Your task to perform on an android device: change the clock display to analog Image 0: 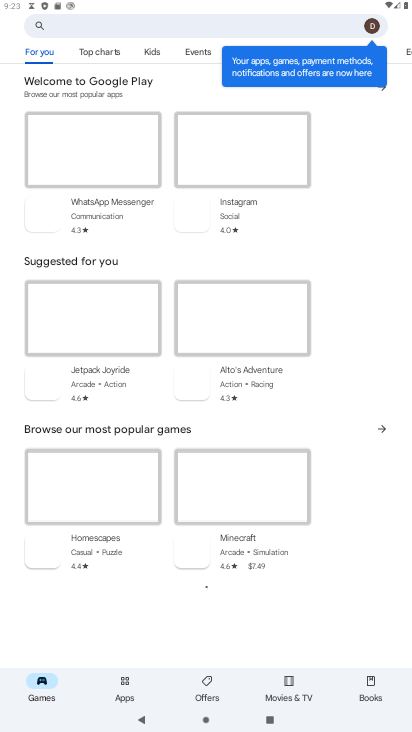
Step 0: press home button
Your task to perform on an android device: change the clock display to analog Image 1: 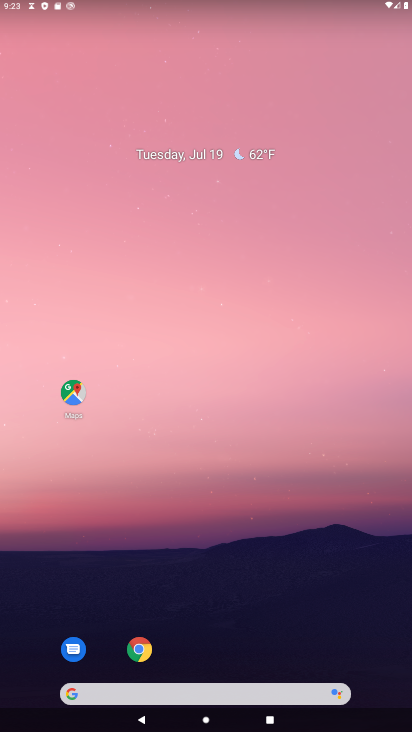
Step 1: drag from (306, 680) to (316, 56)
Your task to perform on an android device: change the clock display to analog Image 2: 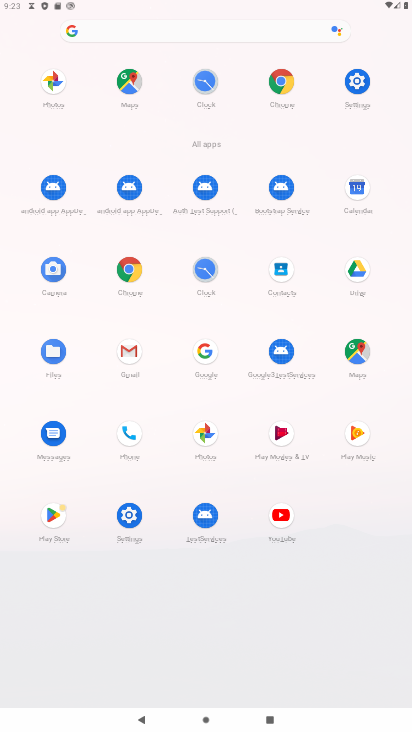
Step 2: click (206, 266)
Your task to perform on an android device: change the clock display to analog Image 3: 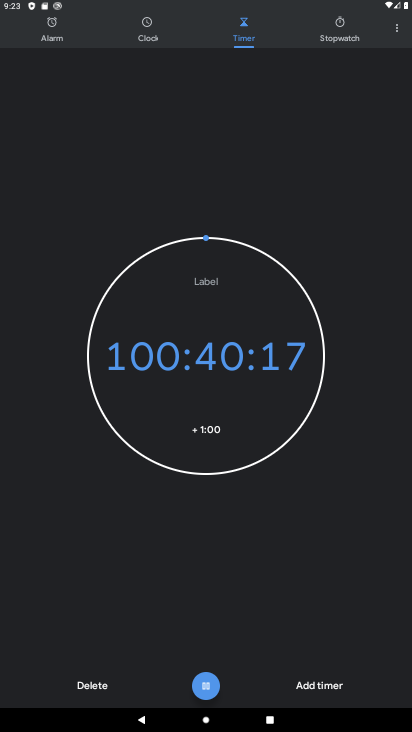
Step 3: click (406, 25)
Your task to perform on an android device: change the clock display to analog Image 4: 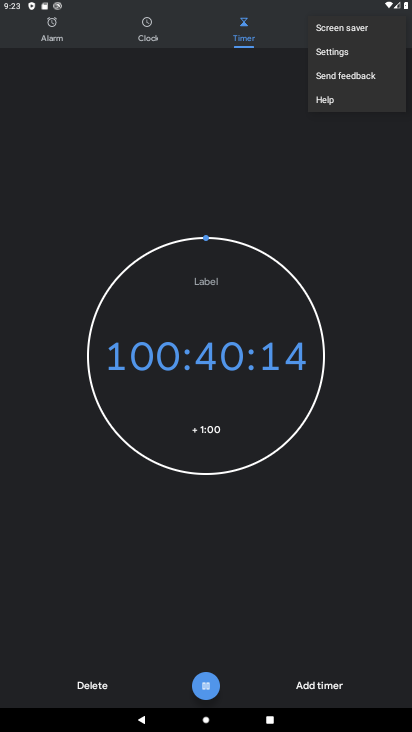
Step 4: click (330, 48)
Your task to perform on an android device: change the clock display to analog Image 5: 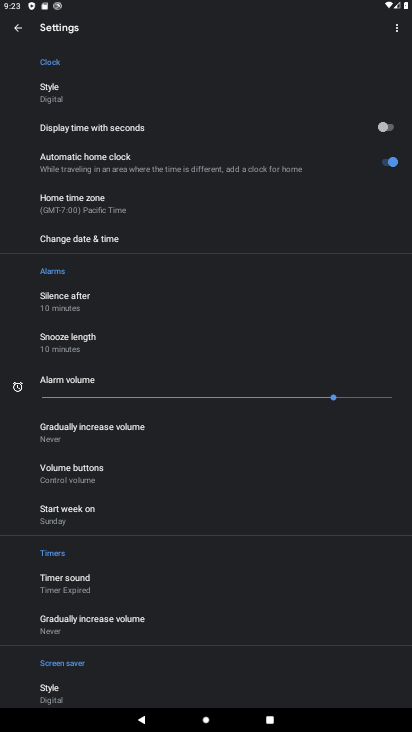
Step 5: click (64, 95)
Your task to perform on an android device: change the clock display to analog Image 6: 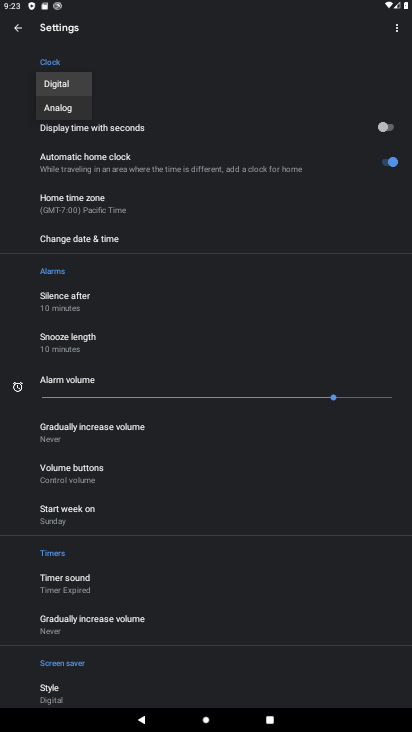
Step 6: click (77, 109)
Your task to perform on an android device: change the clock display to analog Image 7: 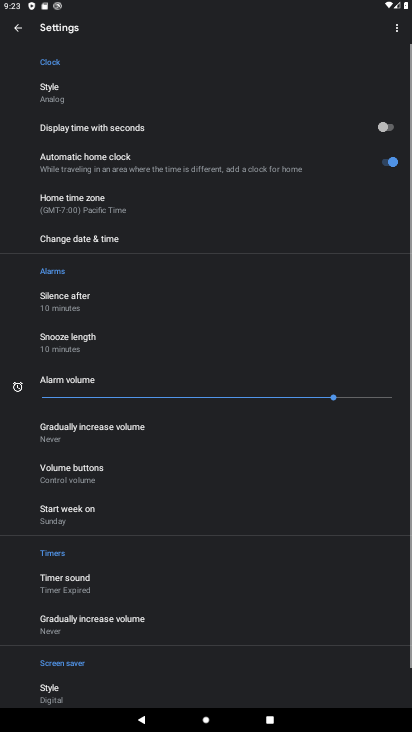
Step 7: task complete